Your task to perform on an android device: Open notification settings Image 0: 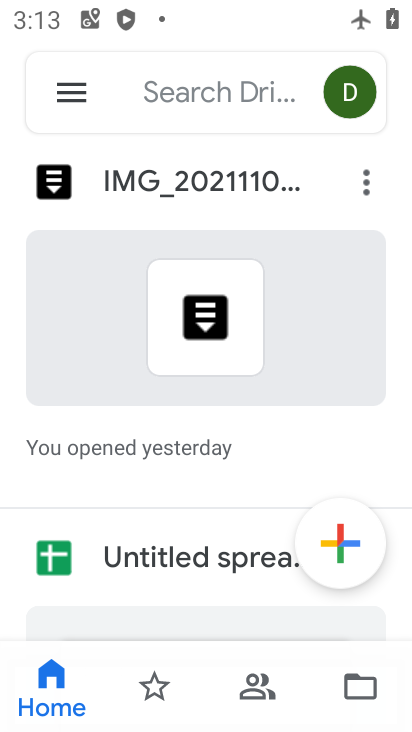
Step 0: press home button
Your task to perform on an android device: Open notification settings Image 1: 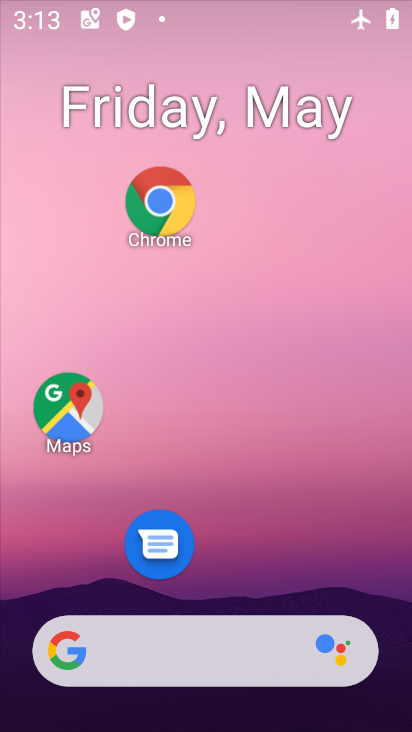
Step 1: drag from (281, 517) to (261, 175)
Your task to perform on an android device: Open notification settings Image 2: 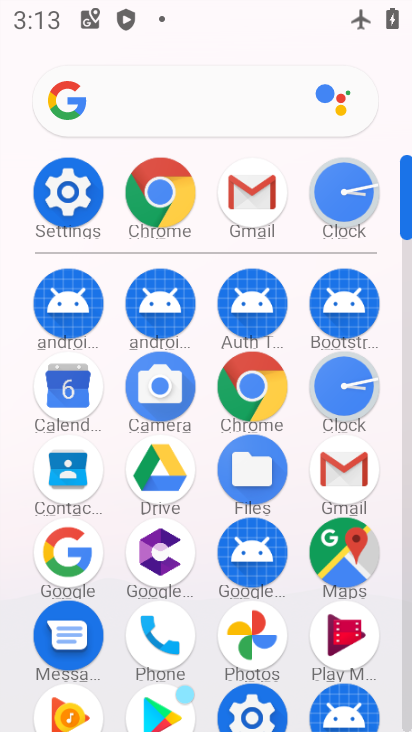
Step 2: click (66, 201)
Your task to perform on an android device: Open notification settings Image 3: 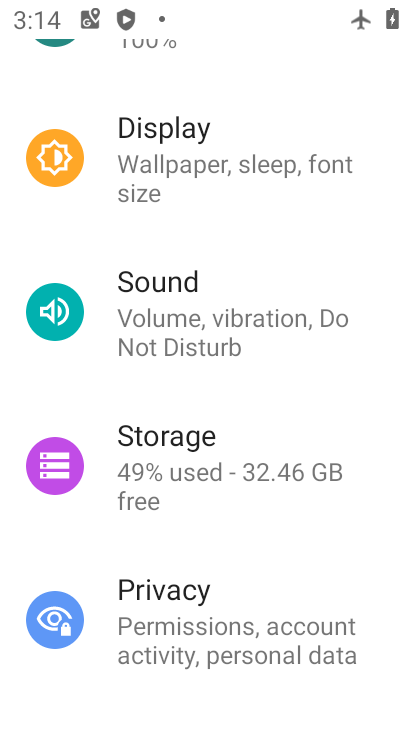
Step 3: drag from (214, 217) to (247, 639)
Your task to perform on an android device: Open notification settings Image 4: 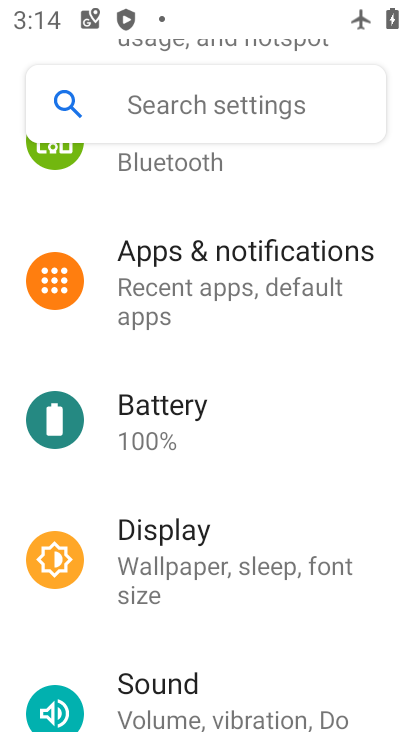
Step 4: click (258, 299)
Your task to perform on an android device: Open notification settings Image 5: 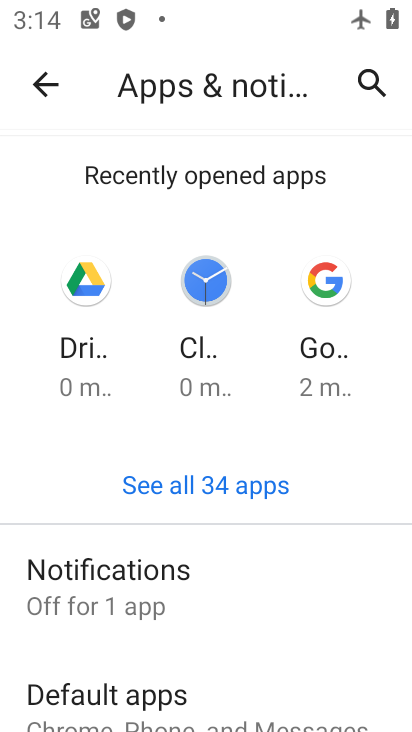
Step 5: click (116, 602)
Your task to perform on an android device: Open notification settings Image 6: 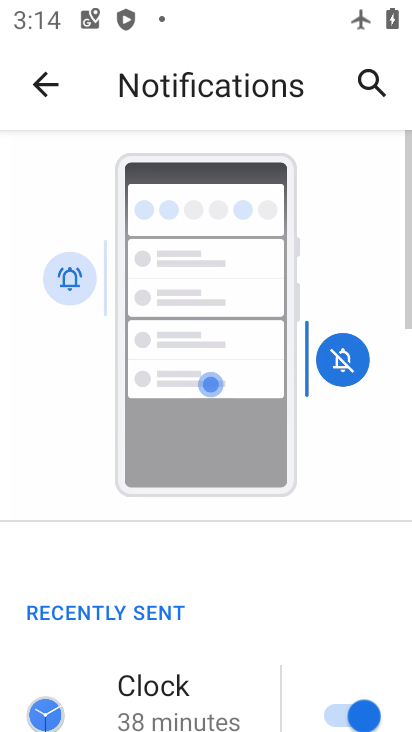
Step 6: task complete